Your task to perform on an android device: turn on showing notifications on the lock screen Image 0: 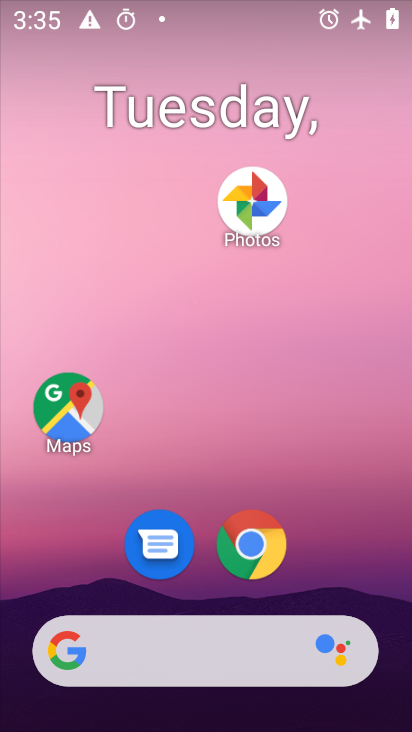
Step 0: drag from (361, 563) to (333, 46)
Your task to perform on an android device: turn on showing notifications on the lock screen Image 1: 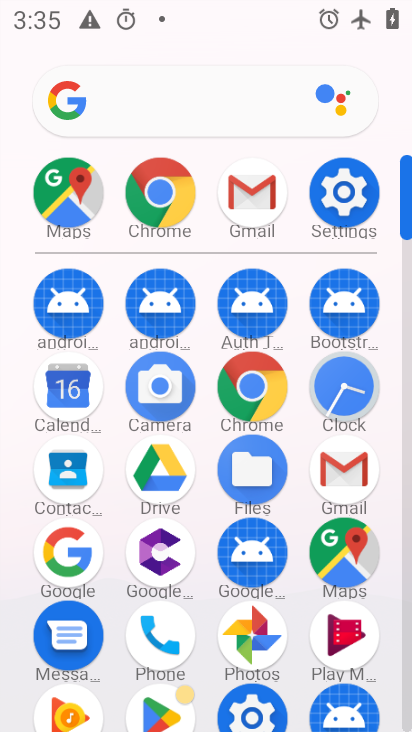
Step 1: click (245, 707)
Your task to perform on an android device: turn on showing notifications on the lock screen Image 2: 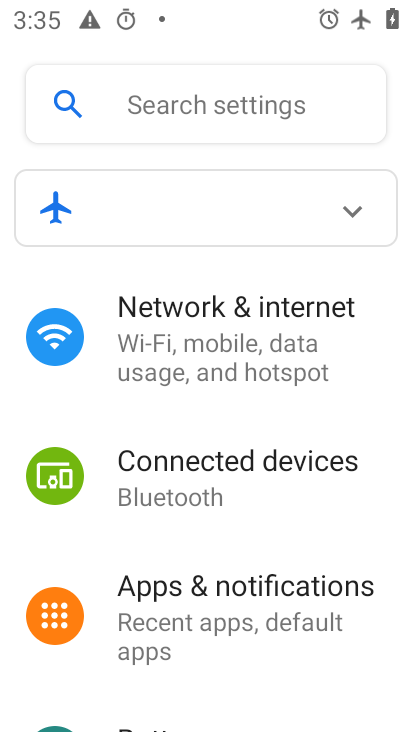
Step 2: click (246, 568)
Your task to perform on an android device: turn on showing notifications on the lock screen Image 3: 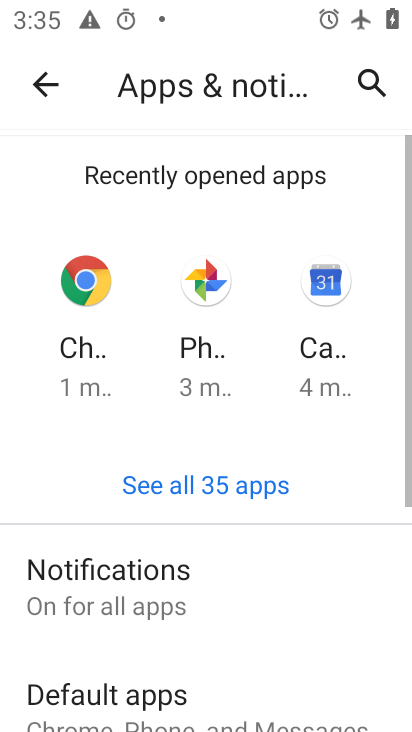
Step 3: drag from (250, 618) to (308, 104)
Your task to perform on an android device: turn on showing notifications on the lock screen Image 4: 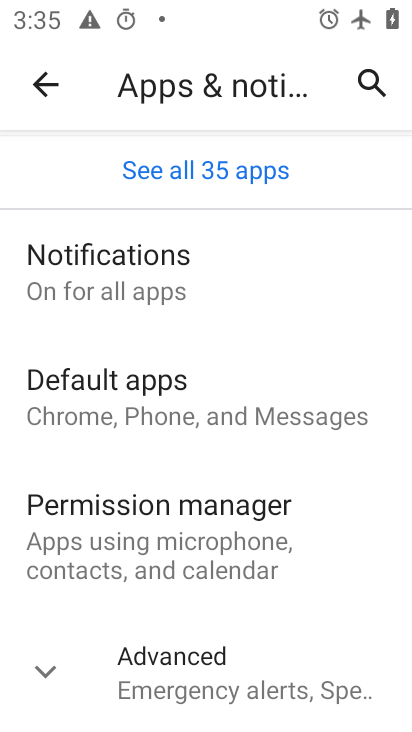
Step 4: click (134, 260)
Your task to perform on an android device: turn on showing notifications on the lock screen Image 5: 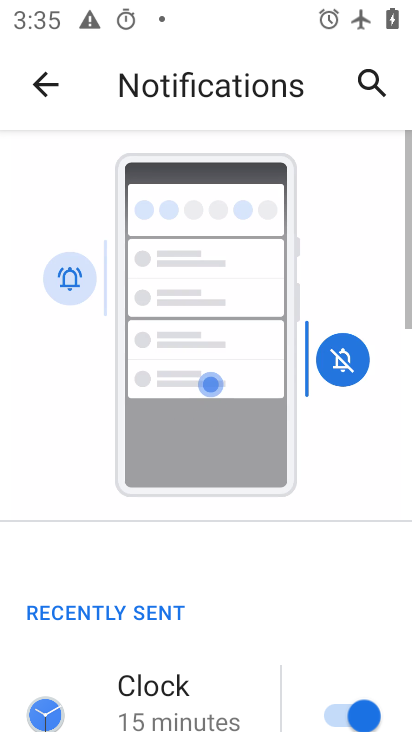
Step 5: drag from (252, 597) to (306, 103)
Your task to perform on an android device: turn on showing notifications on the lock screen Image 6: 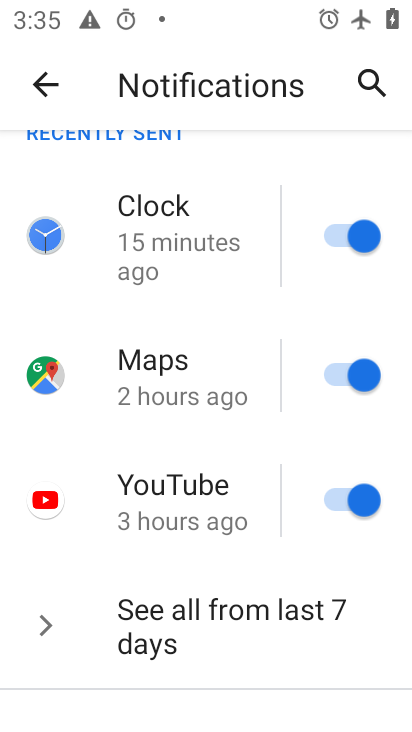
Step 6: drag from (228, 649) to (243, 134)
Your task to perform on an android device: turn on showing notifications on the lock screen Image 7: 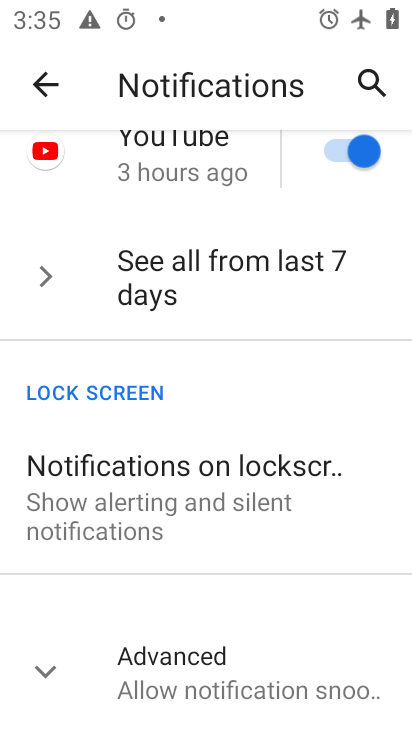
Step 7: click (182, 499)
Your task to perform on an android device: turn on showing notifications on the lock screen Image 8: 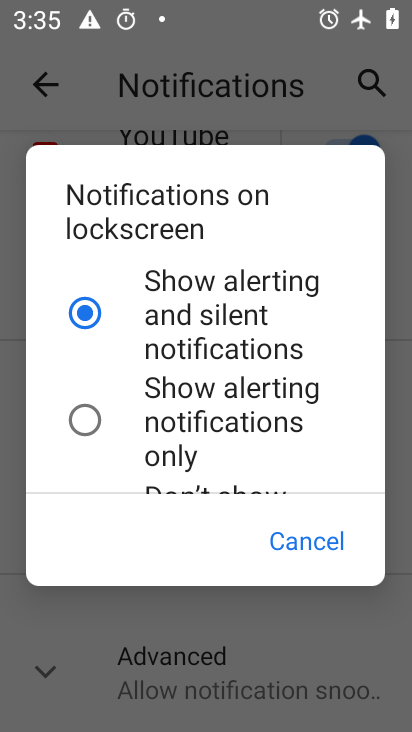
Step 8: task complete